Your task to perform on an android device: Find coffee shops on Maps Image 0: 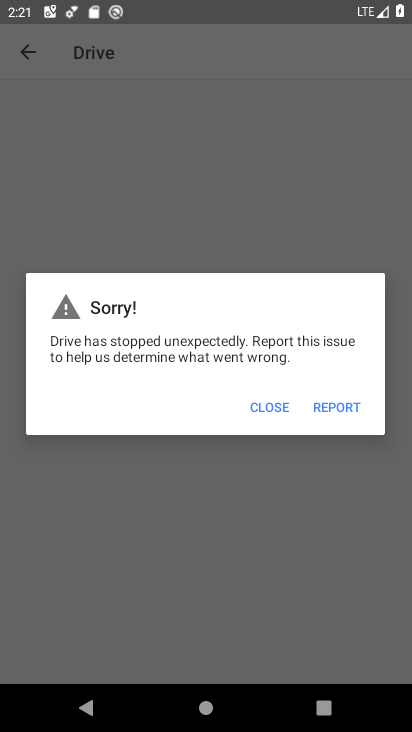
Step 0: press home button
Your task to perform on an android device: Find coffee shops on Maps Image 1: 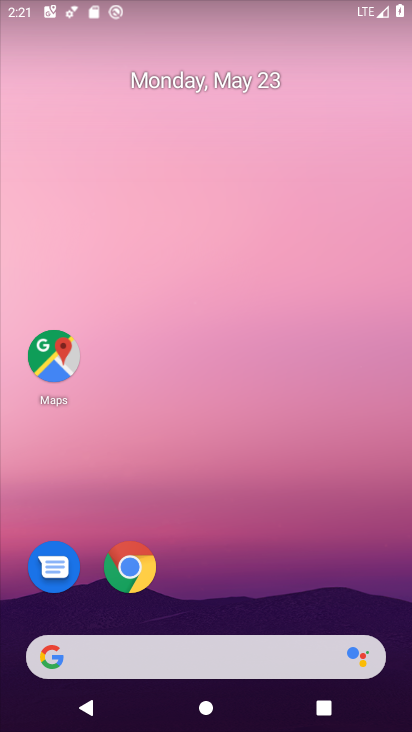
Step 1: drag from (319, 570) to (297, 249)
Your task to perform on an android device: Find coffee shops on Maps Image 2: 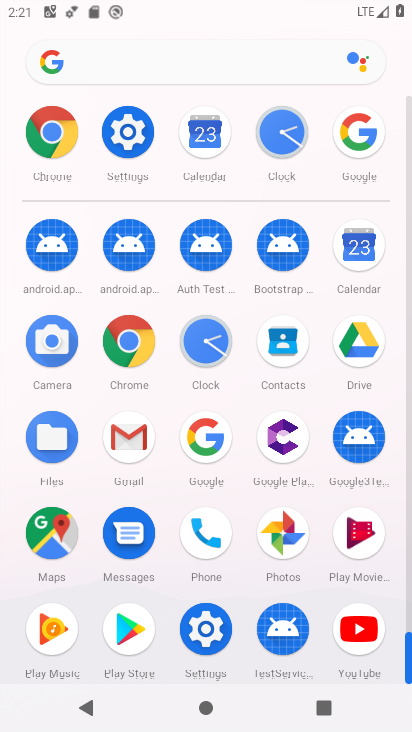
Step 2: click (47, 535)
Your task to perform on an android device: Find coffee shops on Maps Image 3: 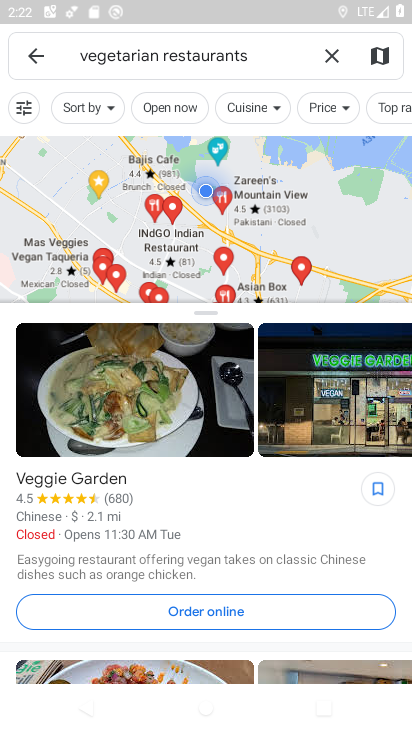
Step 3: click (329, 58)
Your task to perform on an android device: Find coffee shops on Maps Image 4: 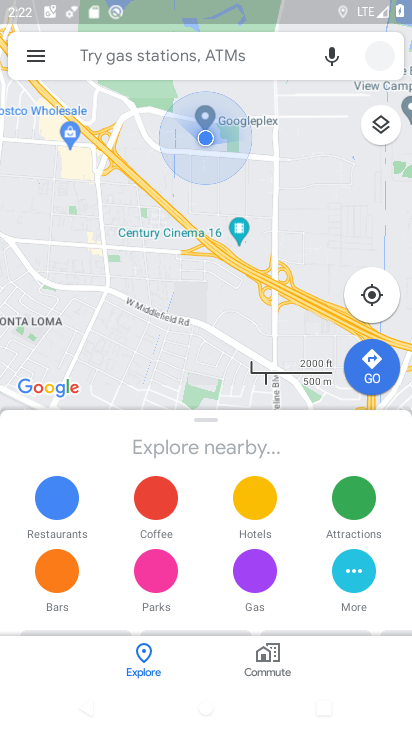
Step 4: click (205, 75)
Your task to perform on an android device: Find coffee shops on Maps Image 5: 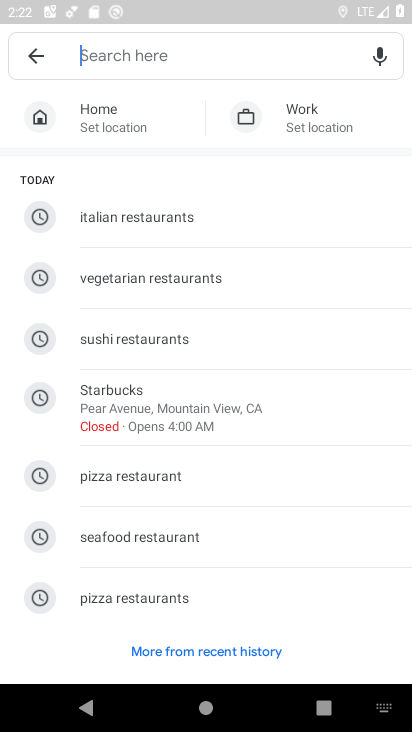
Step 5: type "coffee shops "
Your task to perform on an android device: Find coffee shops on Maps Image 6: 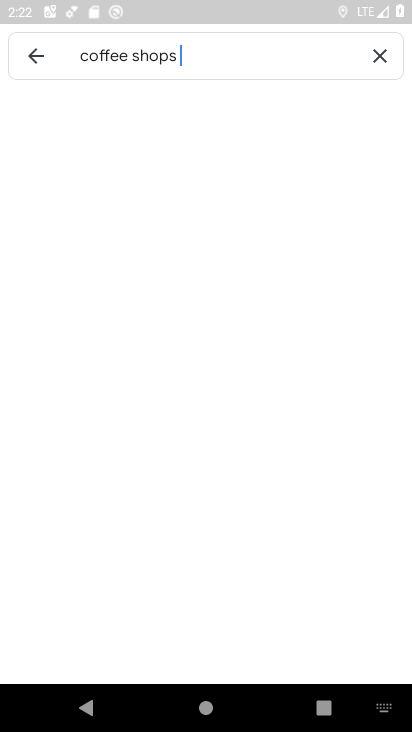
Step 6: type ""
Your task to perform on an android device: Find coffee shops on Maps Image 7: 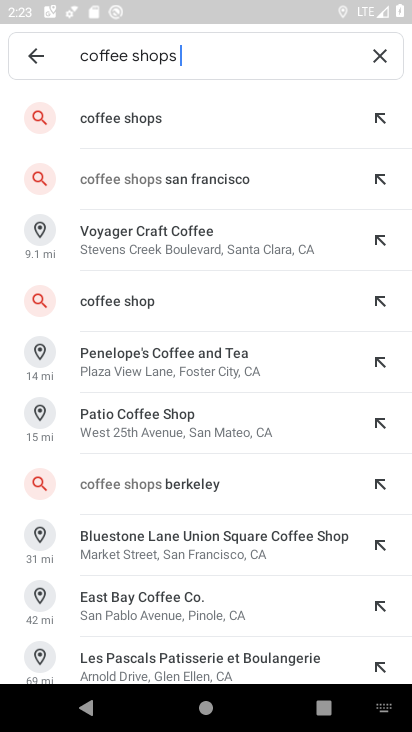
Step 7: task complete